Your task to perform on an android device: change the clock style Image 0: 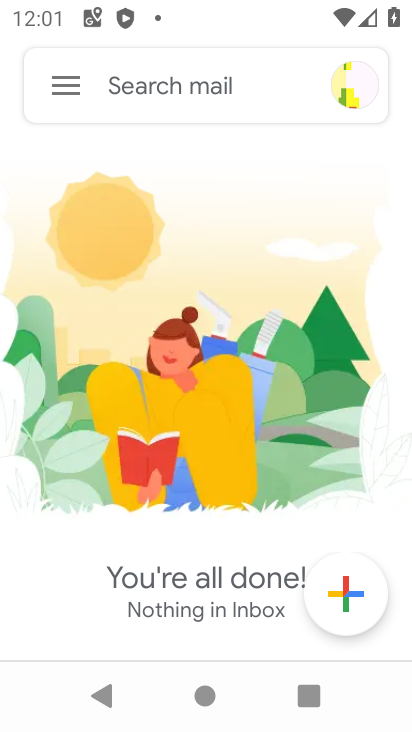
Step 0: press back button
Your task to perform on an android device: change the clock style Image 1: 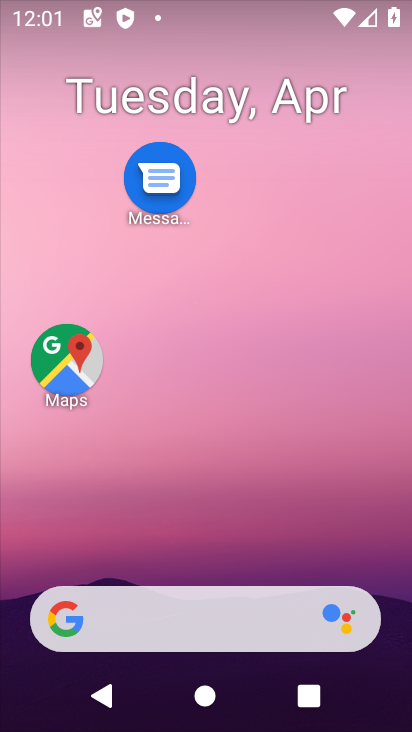
Step 1: drag from (205, 703) to (154, 71)
Your task to perform on an android device: change the clock style Image 2: 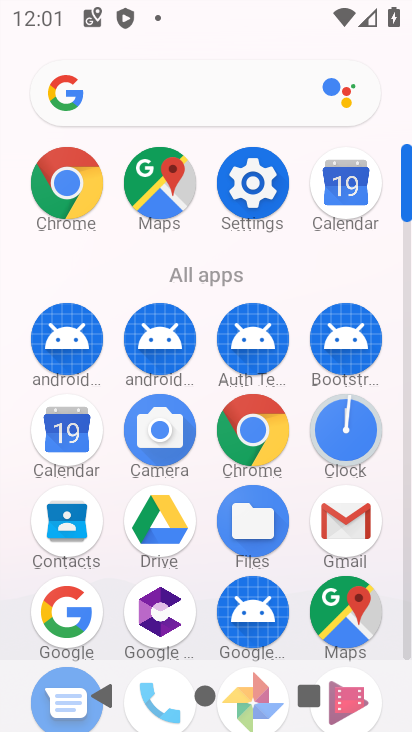
Step 2: click (345, 431)
Your task to perform on an android device: change the clock style Image 3: 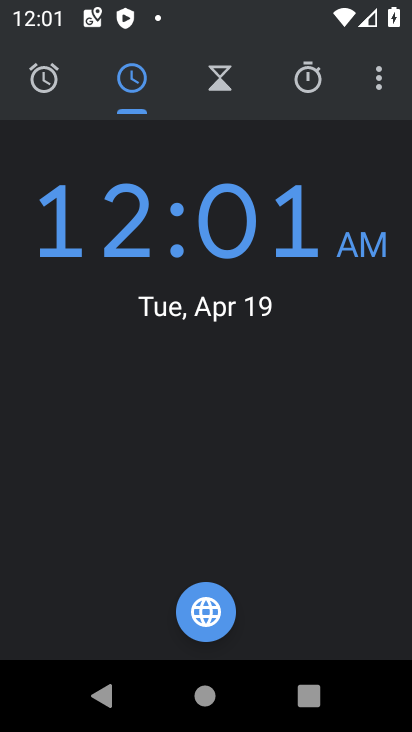
Step 3: click (375, 80)
Your task to perform on an android device: change the clock style Image 4: 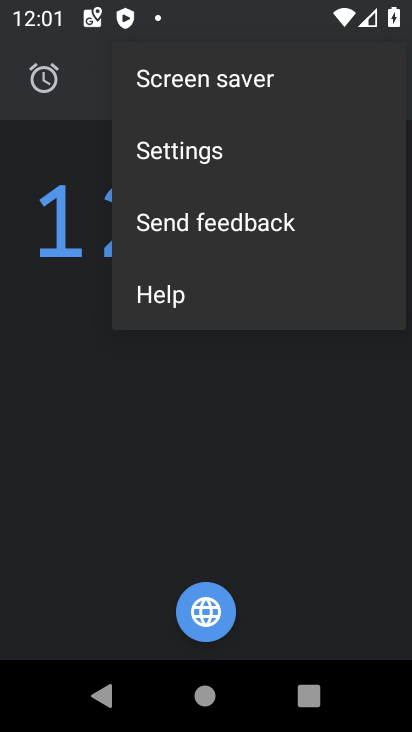
Step 4: click (183, 141)
Your task to perform on an android device: change the clock style Image 5: 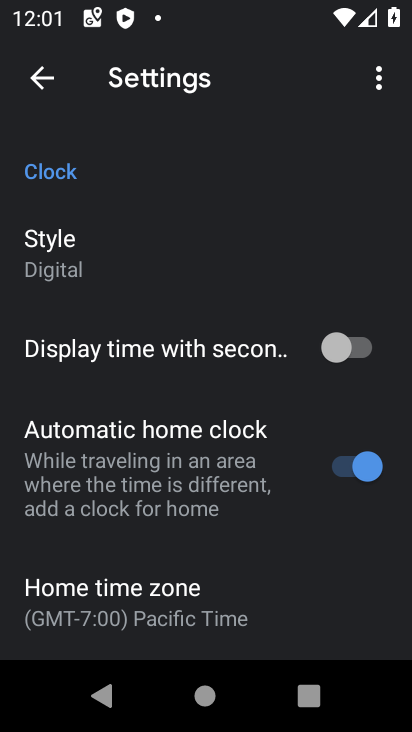
Step 5: click (60, 254)
Your task to perform on an android device: change the clock style Image 6: 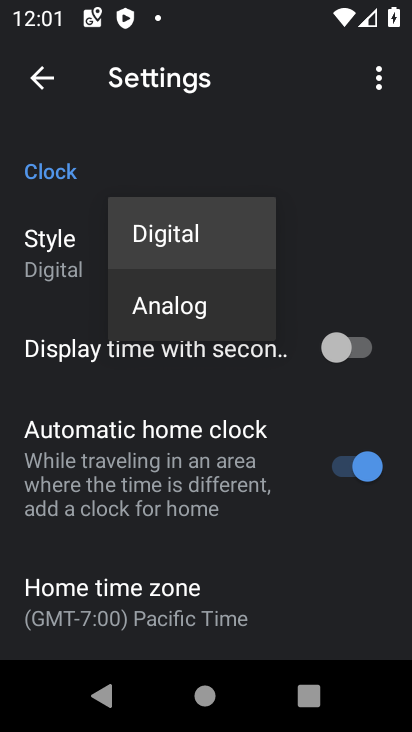
Step 6: click (168, 301)
Your task to perform on an android device: change the clock style Image 7: 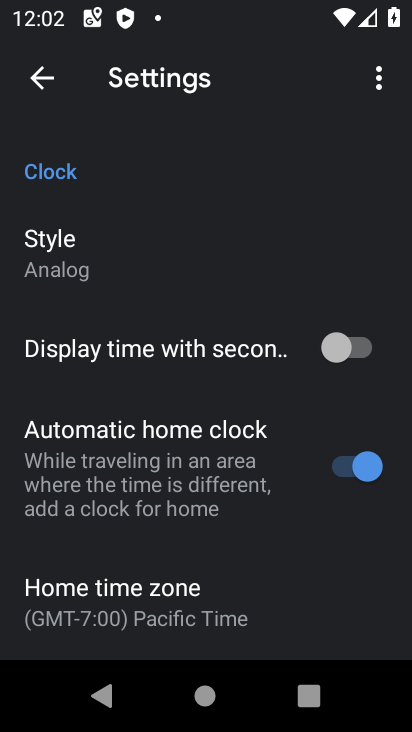
Step 7: task complete